Your task to perform on an android device: find snoozed emails in the gmail app Image 0: 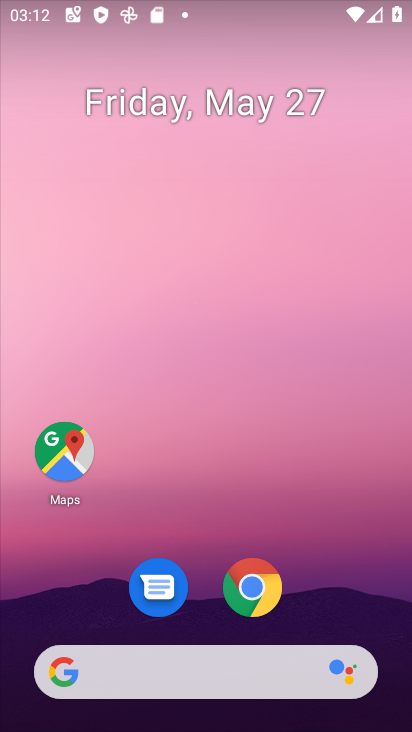
Step 0: drag from (365, 573) to (310, 145)
Your task to perform on an android device: find snoozed emails in the gmail app Image 1: 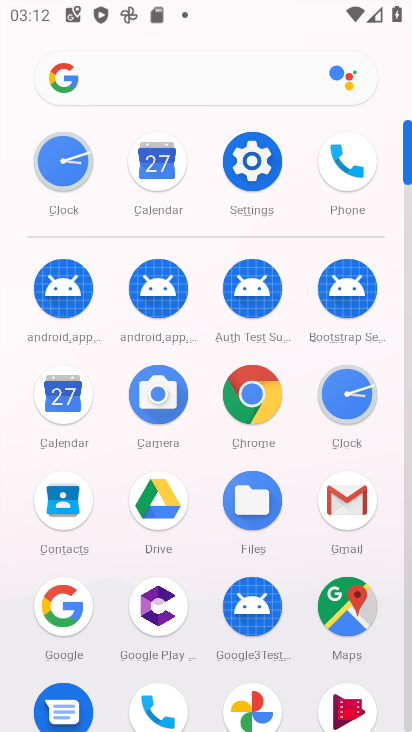
Step 1: click (356, 508)
Your task to perform on an android device: find snoozed emails in the gmail app Image 2: 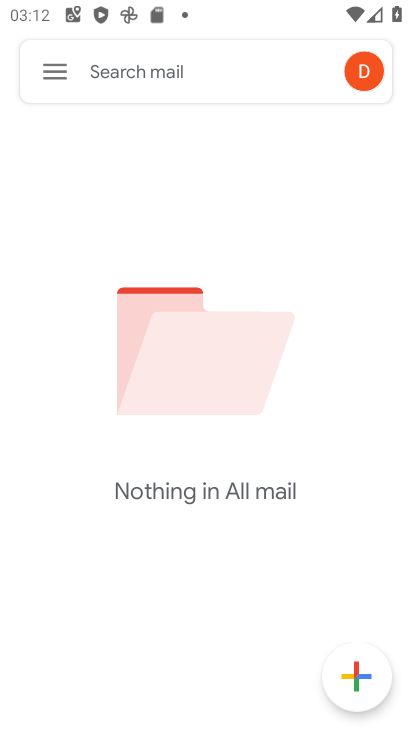
Step 2: click (64, 83)
Your task to perform on an android device: find snoozed emails in the gmail app Image 3: 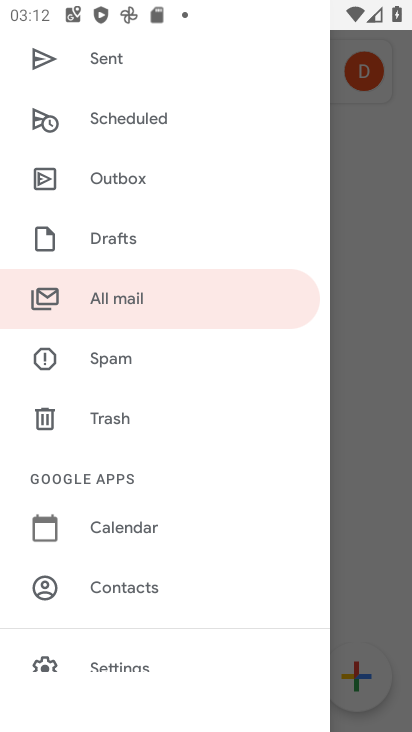
Step 3: drag from (222, 85) to (231, 411)
Your task to perform on an android device: find snoozed emails in the gmail app Image 4: 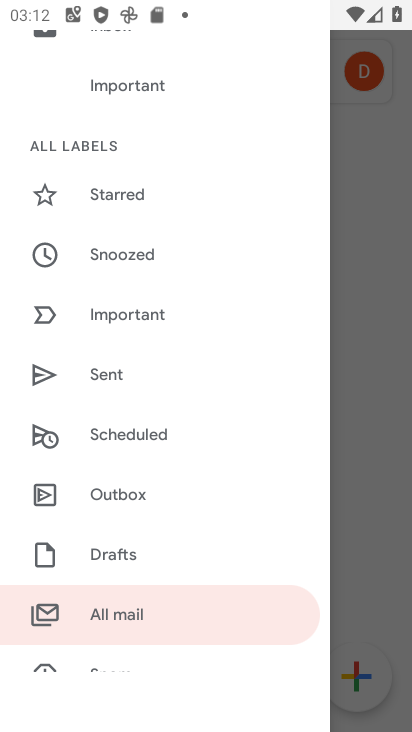
Step 4: click (135, 260)
Your task to perform on an android device: find snoozed emails in the gmail app Image 5: 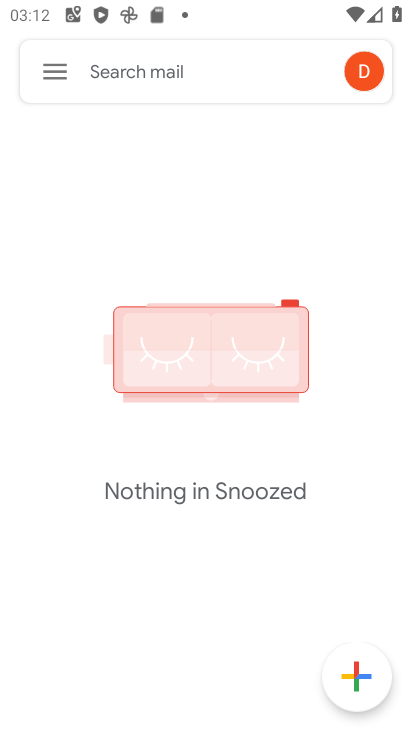
Step 5: task complete